Your task to perform on an android device: Go to Wikipedia Image 0: 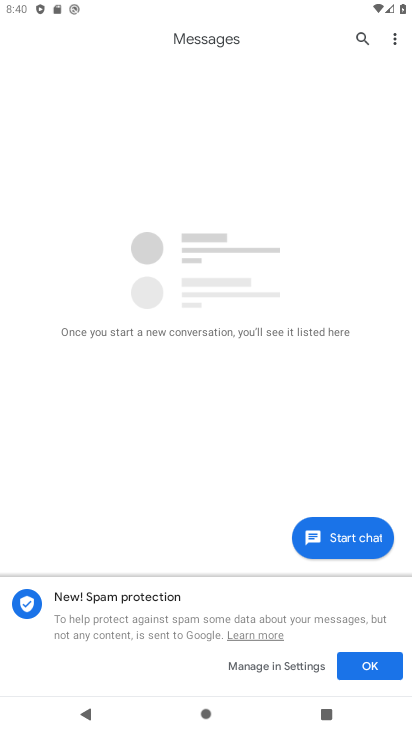
Step 0: press home button
Your task to perform on an android device: Go to Wikipedia Image 1: 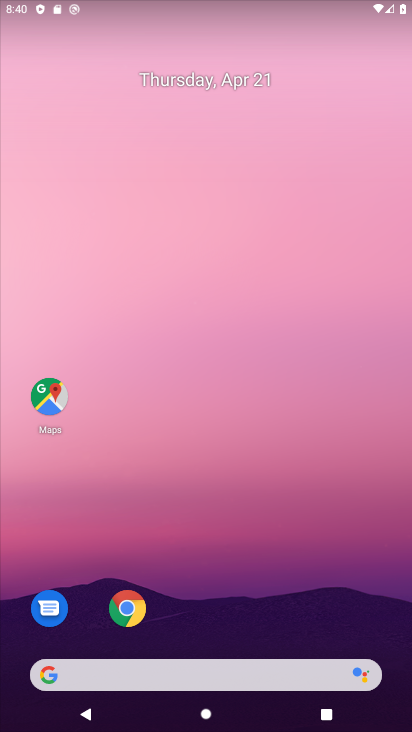
Step 1: click (129, 607)
Your task to perform on an android device: Go to Wikipedia Image 2: 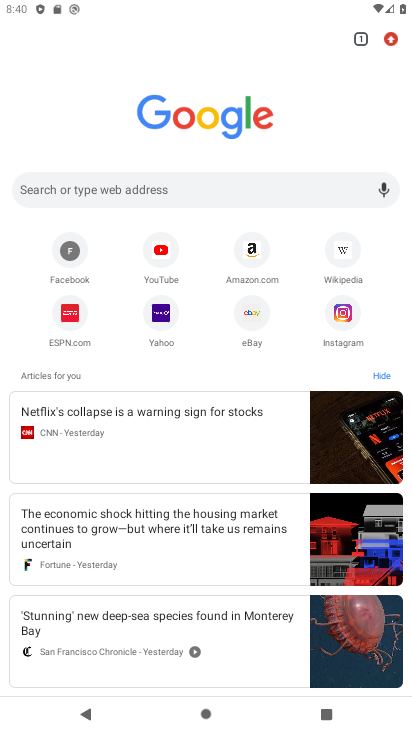
Step 2: click (339, 255)
Your task to perform on an android device: Go to Wikipedia Image 3: 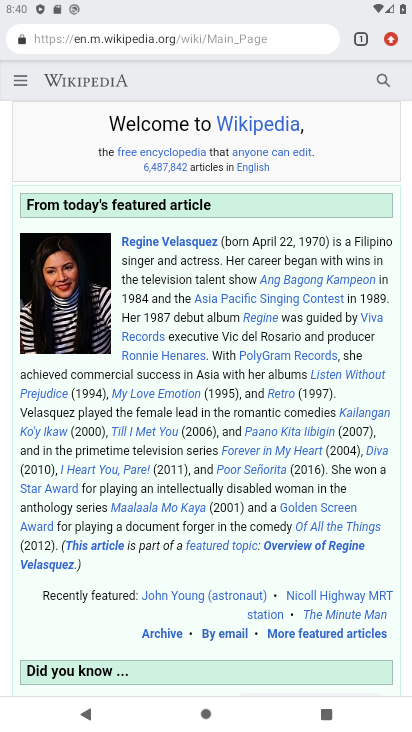
Step 3: task complete